Your task to perform on an android device: see sites visited before in the chrome app Image 0: 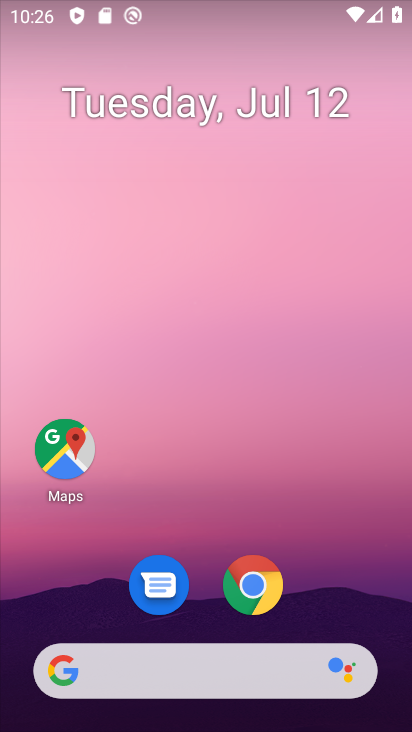
Step 0: drag from (246, 458) to (293, 40)
Your task to perform on an android device: see sites visited before in the chrome app Image 1: 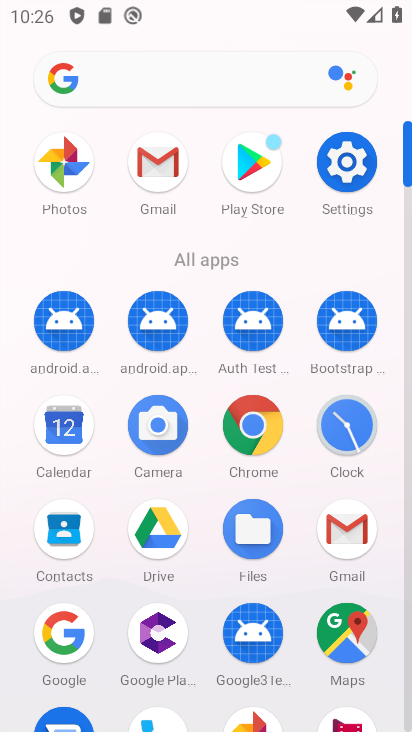
Step 1: click (262, 430)
Your task to perform on an android device: see sites visited before in the chrome app Image 2: 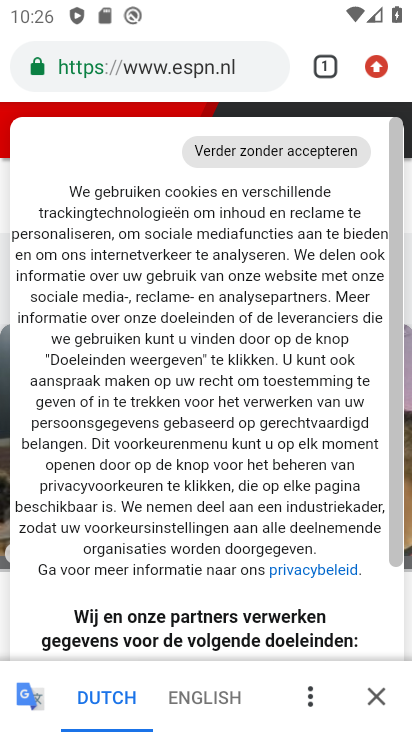
Step 2: click (378, 65)
Your task to perform on an android device: see sites visited before in the chrome app Image 3: 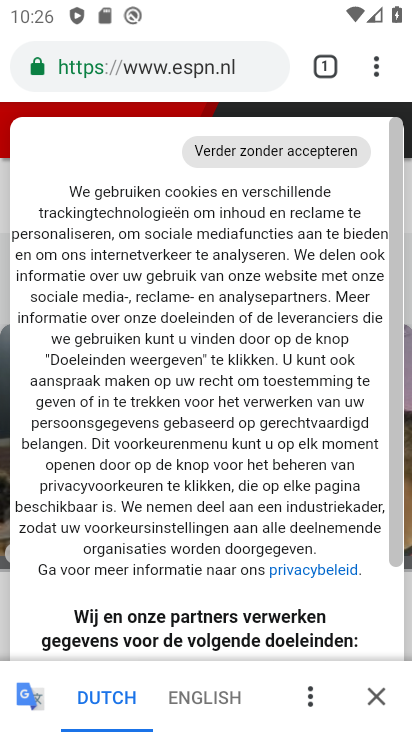
Step 3: click (375, 68)
Your task to perform on an android device: see sites visited before in the chrome app Image 4: 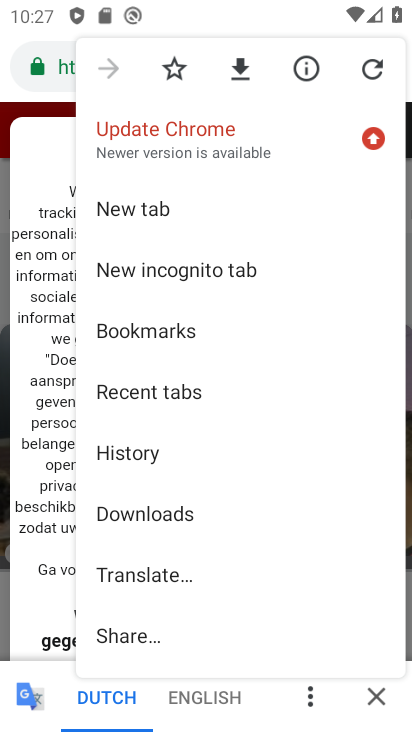
Step 4: click (144, 390)
Your task to perform on an android device: see sites visited before in the chrome app Image 5: 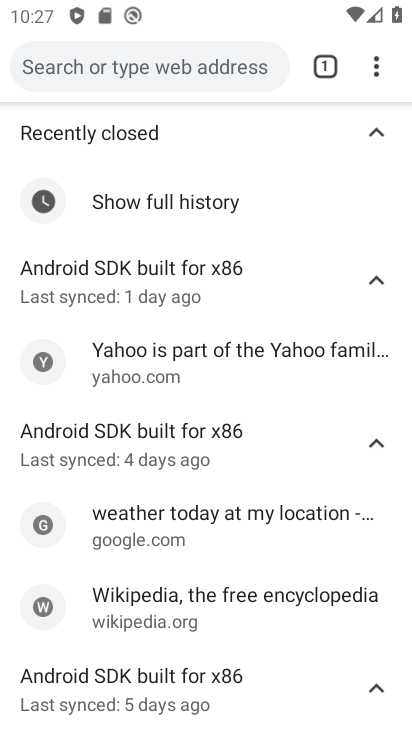
Step 5: task complete